Your task to perform on an android device: turn notification dots off Image 0: 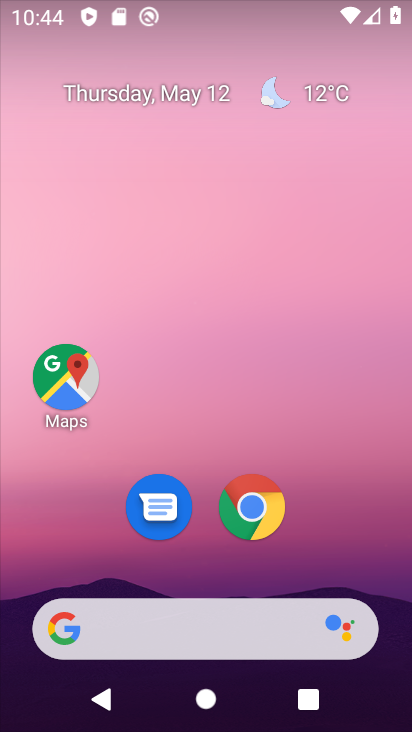
Step 0: drag from (211, 563) to (277, 7)
Your task to perform on an android device: turn notification dots off Image 1: 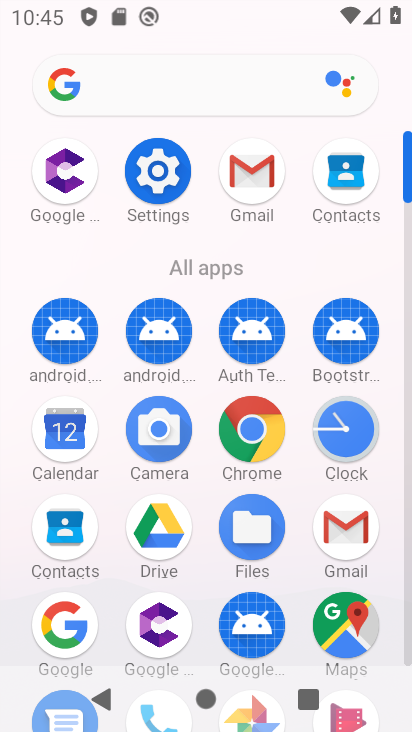
Step 1: click (164, 183)
Your task to perform on an android device: turn notification dots off Image 2: 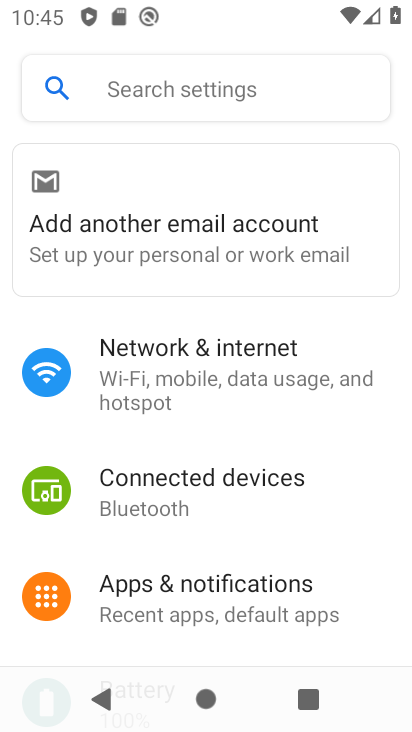
Step 2: click (194, 599)
Your task to perform on an android device: turn notification dots off Image 3: 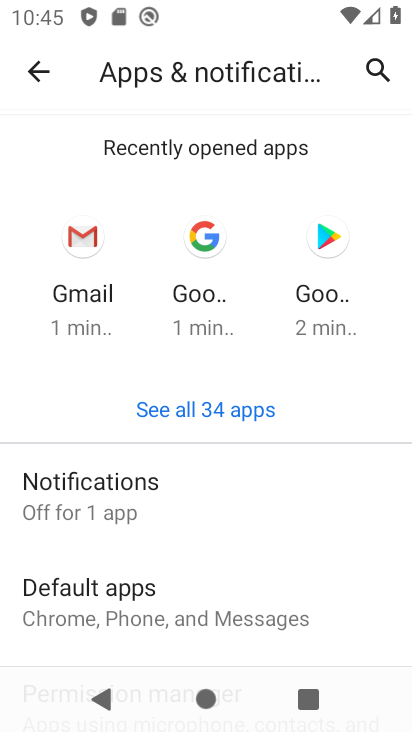
Step 3: drag from (160, 534) to (174, 166)
Your task to perform on an android device: turn notification dots off Image 4: 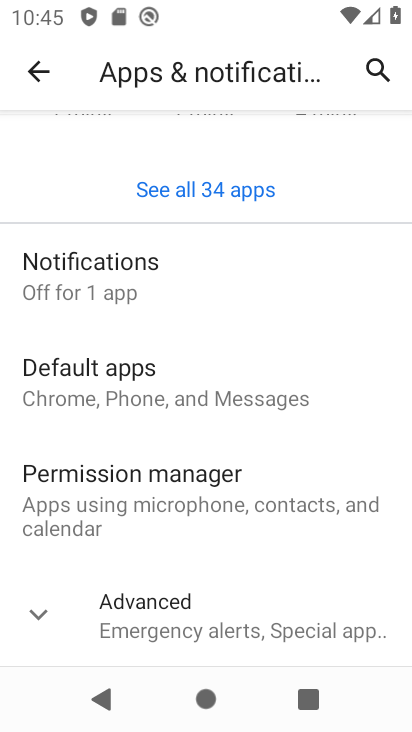
Step 4: click (88, 414)
Your task to perform on an android device: turn notification dots off Image 5: 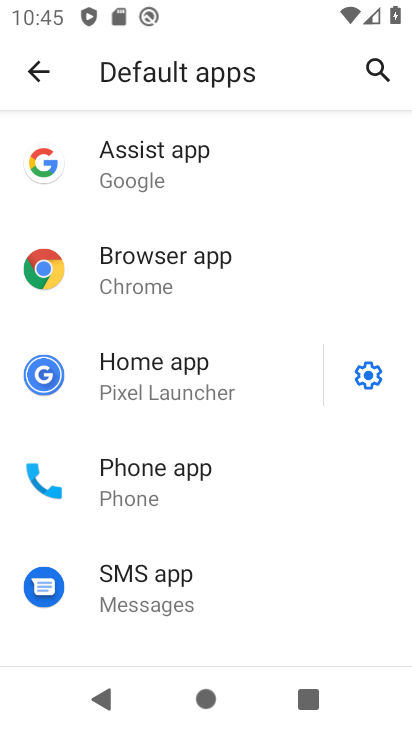
Step 5: click (42, 84)
Your task to perform on an android device: turn notification dots off Image 6: 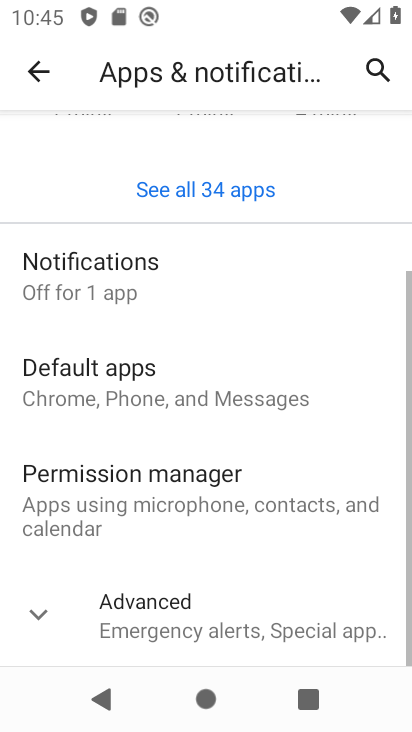
Step 6: click (152, 275)
Your task to perform on an android device: turn notification dots off Image 7: 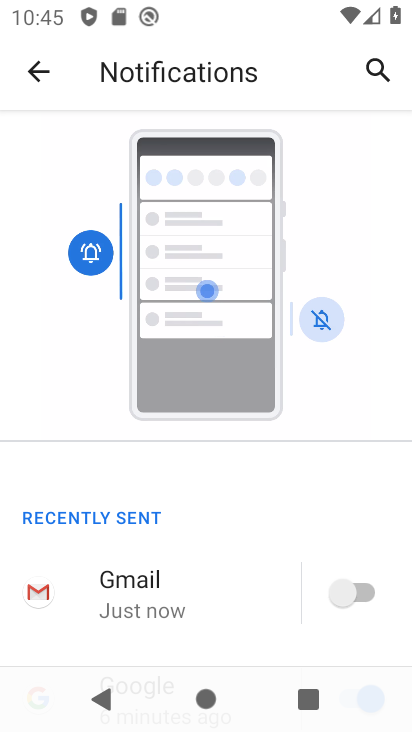
Step 7: drag from (137, 564) to (166, 190)
Your task to perform on an android device: turn notification dots off Image 8: 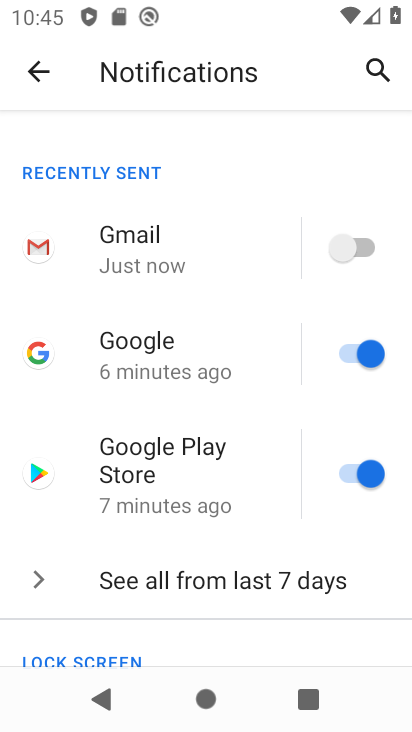
Step 8: drag from (147, 494) to (199, 272)
Your task to perform on an android device: turn notification dots off Image 9: 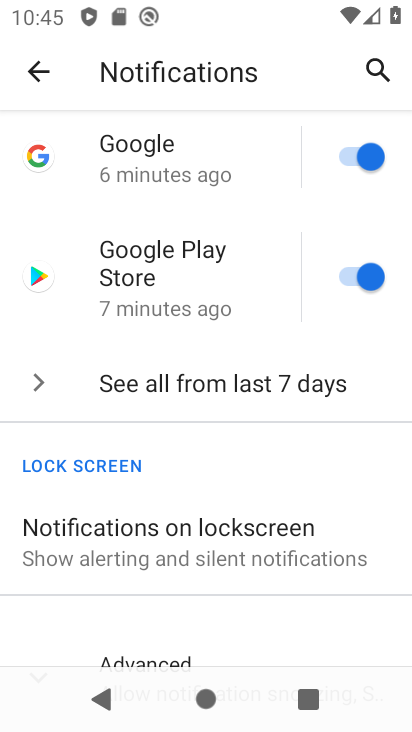
Step 9: drag from (213, 430) to (227, 291)
Your task to perform on an android device: turn notification dots off Image 10: 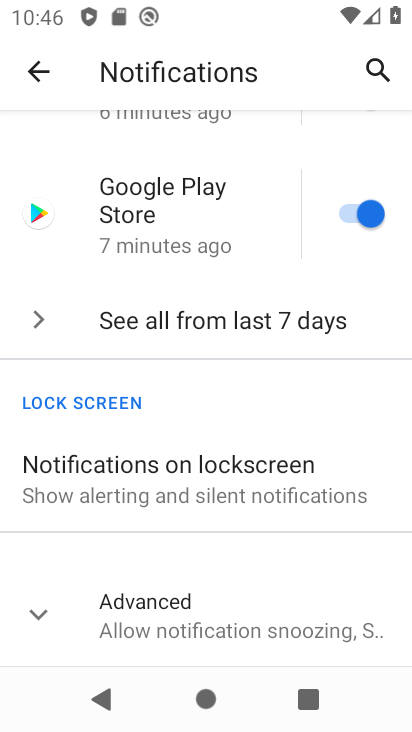
Step 10: drag from (235, 529) to (245, 377)
Your task to perform on an android device: turn notification dots off Image 11: 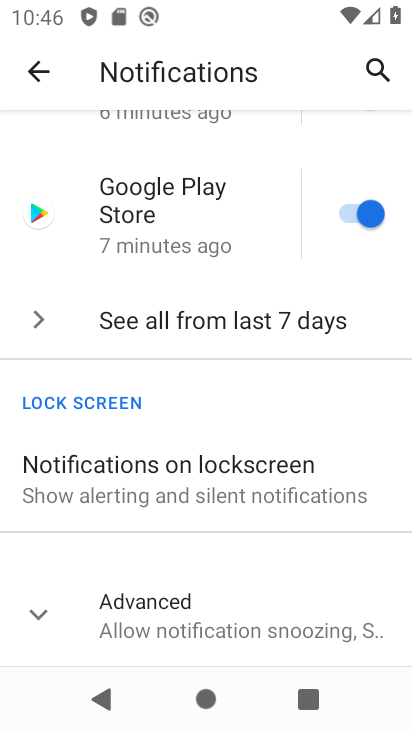
Step 11: click (162, 611)
Your task to perform on an android device: turn notification dots off Image 12: 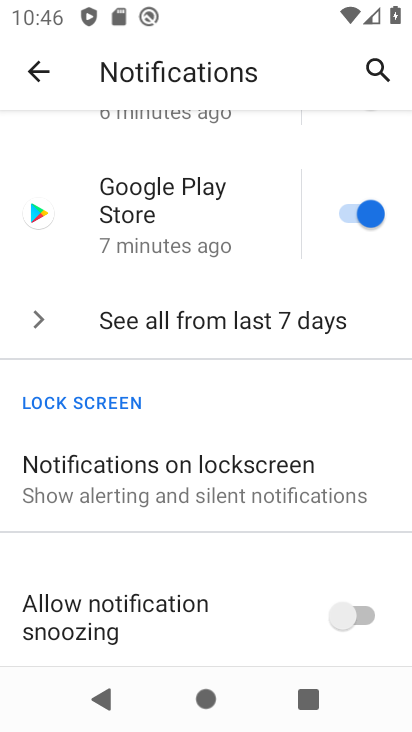
Step 12: drag from (172, 601) to (259, 182)
Your task to perform on an android device: turn notification dots off Image 13: 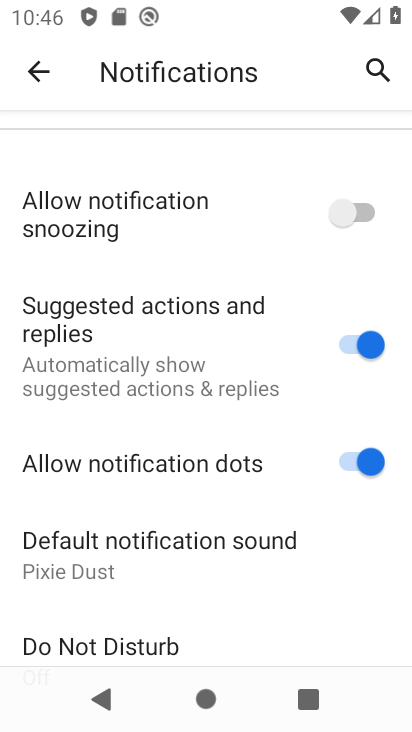
Step 13: click (330, 462)
Your task to perform on an android device: turn notification dots off Image 14: 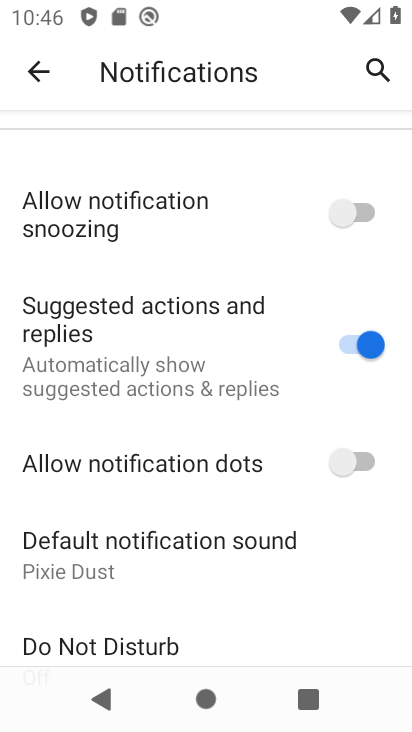
Step 14: task complete